Your task to perform on an android device: set an alarm Image 0: 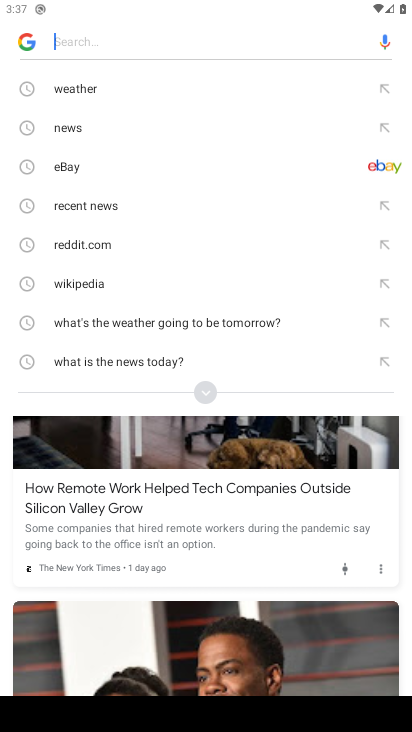
Step 0: press back button
Your task to perform on an android device: set an alarm Image 1: 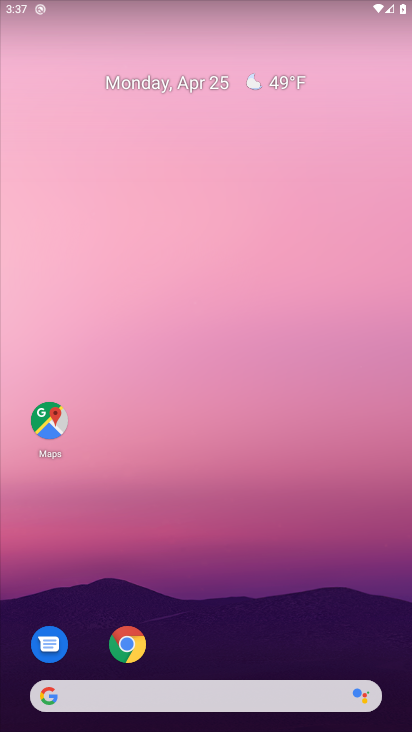
Step 1: drag from (214, 631) to (197, 221)
Your task to perform on an android device: set an alarm Image 2: 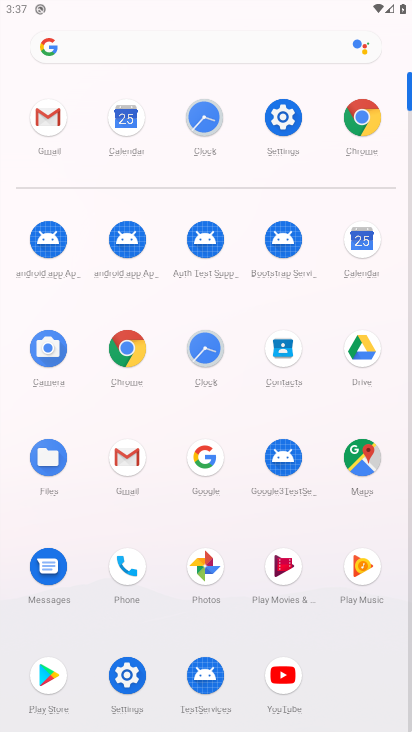
Step 2: click (209, 133)
Your task to perform on an android device: set an alarm Image 3: 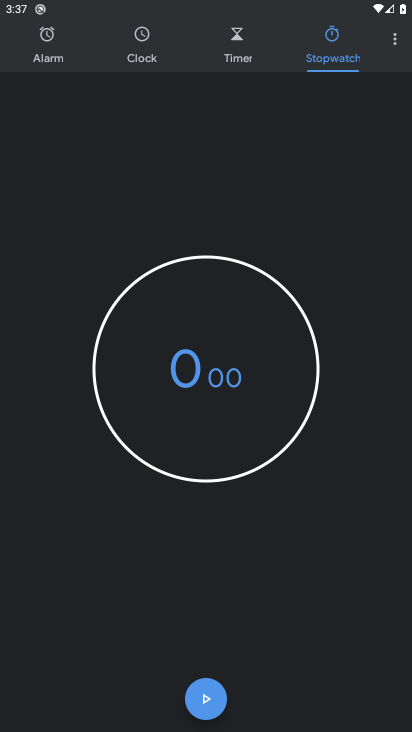
Step 3: click (48, 32)
Your task to perform on an android device: set an alarm Image 4: 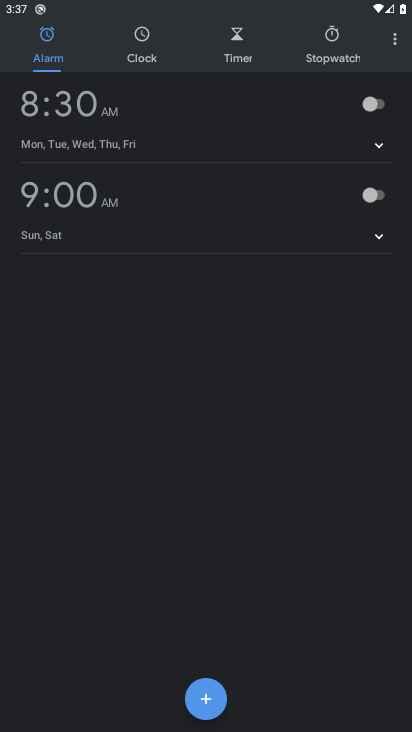
Step 4: click (370, 119)
Your task to perform on an android device: set an alarm Image 5: 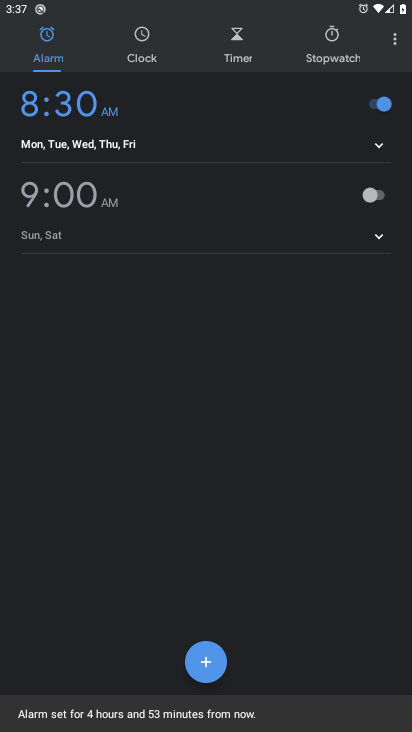
Step 5: task complete